Your task to perform on an android device: check android version Image 0: 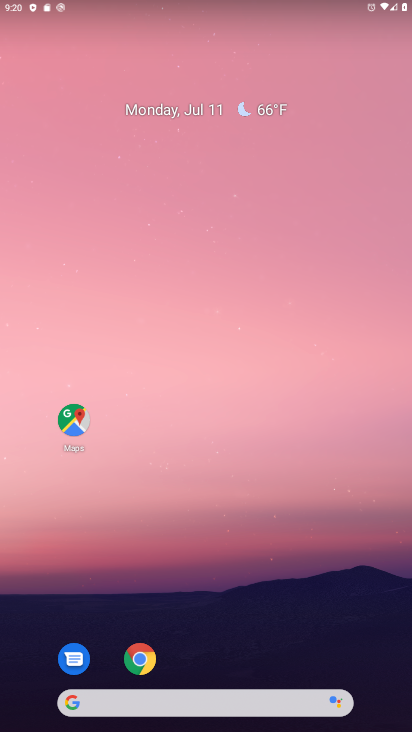
Step 0: drag from (345, 642) to (339, 183)
Your task to perform on an android device: check android version Image 1: 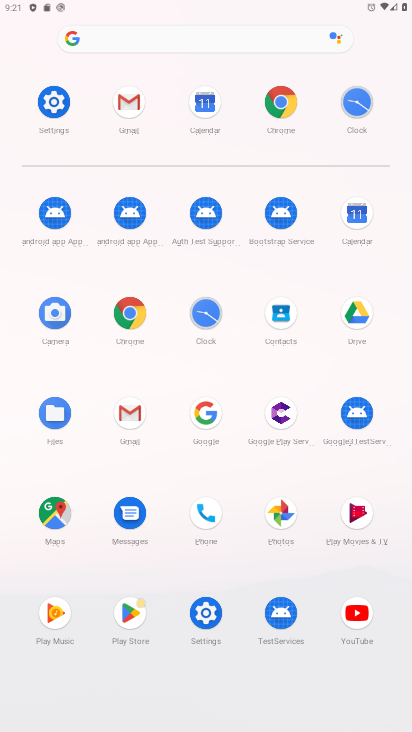
Step 1: click (201, 611)
Your task to perform on an android device: check android version Image 2: 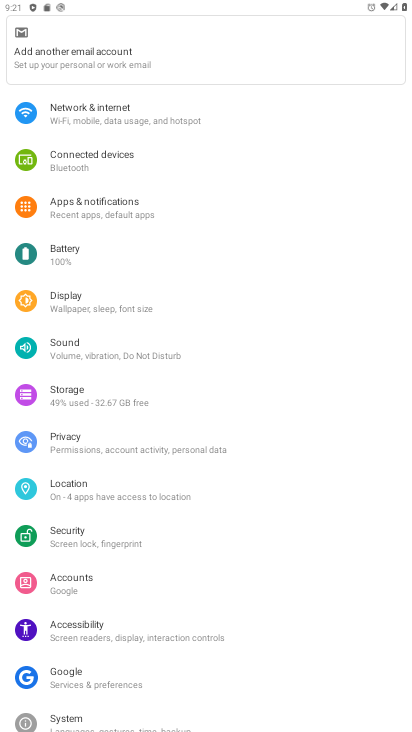
Step 2: drag from (260, 629) to (278, 353)
Your task to perform on an android device: check android version Image 3: 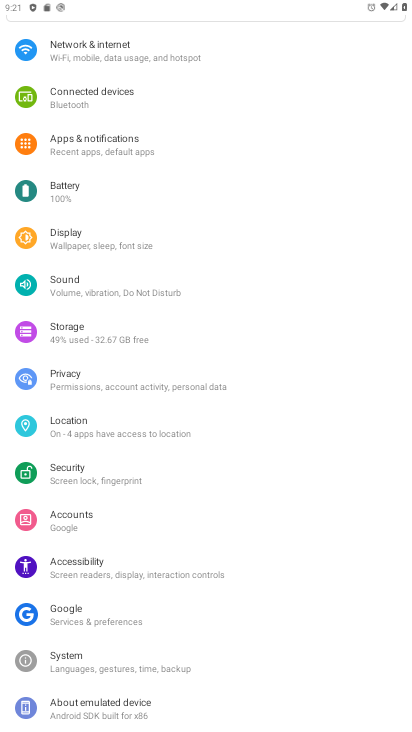
Step 3: click (177, 667)
Your task to perform on an android device: check android version Image 4: 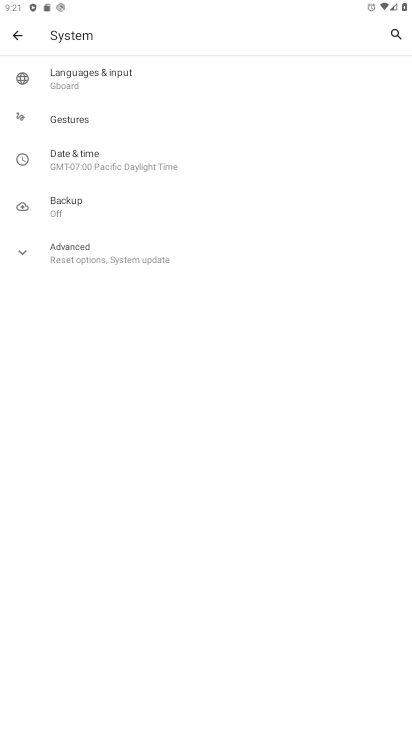
Step 4: click (179, 256)
Your task to perform on an android device: check android version Image 5: 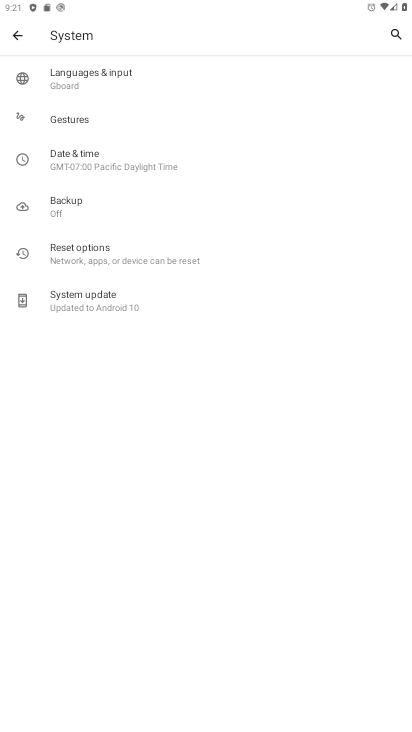
Step 5: click (133, 298)
Your task to perform on an android device: check android version Image 6: 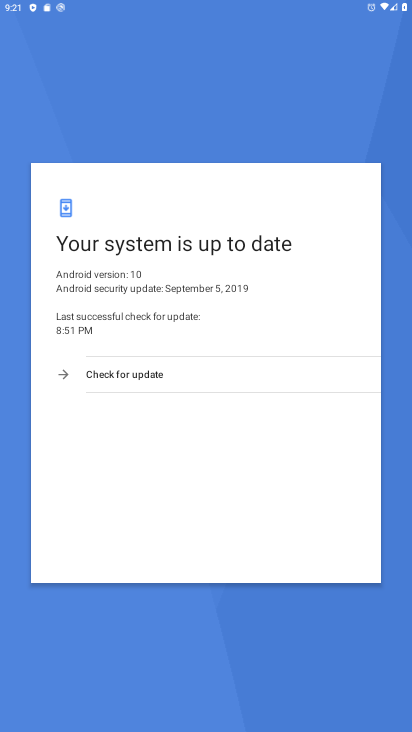
Step 6: task complete